Your task to perform on an android device: allow notifications from all sites in the chrome app Image 0: 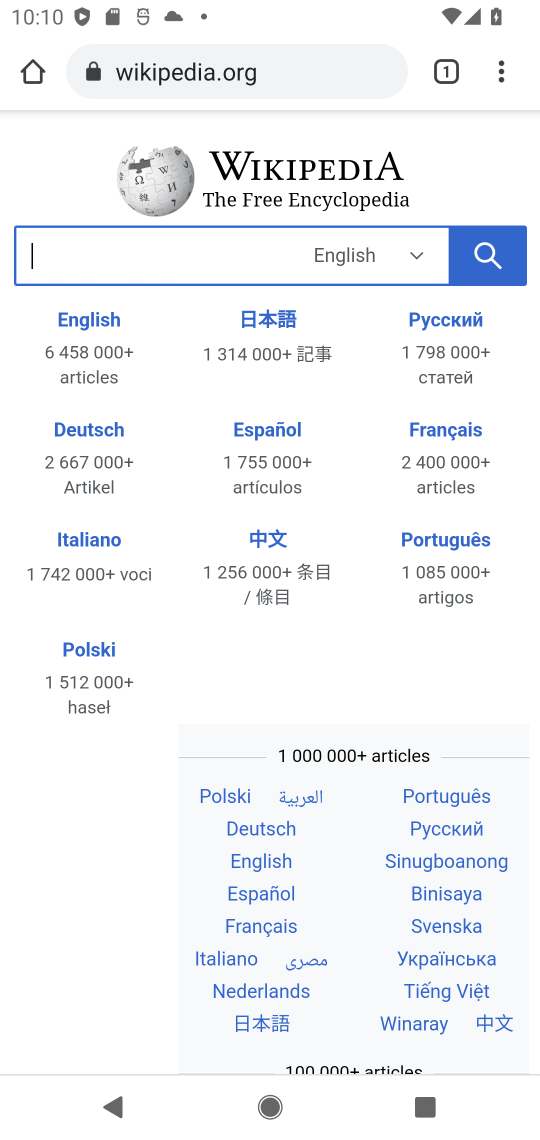
Step 0: click (489, 81)
Your task to perform on an android device: allow notifications from all sites in the chrome app Image 1: 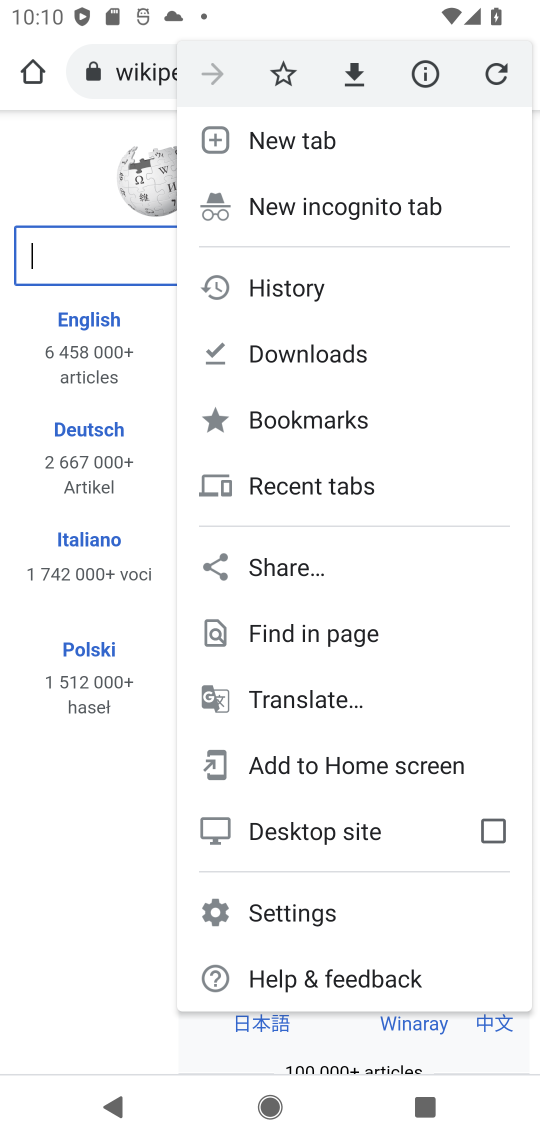
Step 1: click (287, 913)
Your task to perform on an android device: allow notifications from all sites in the chrome app Image 2: 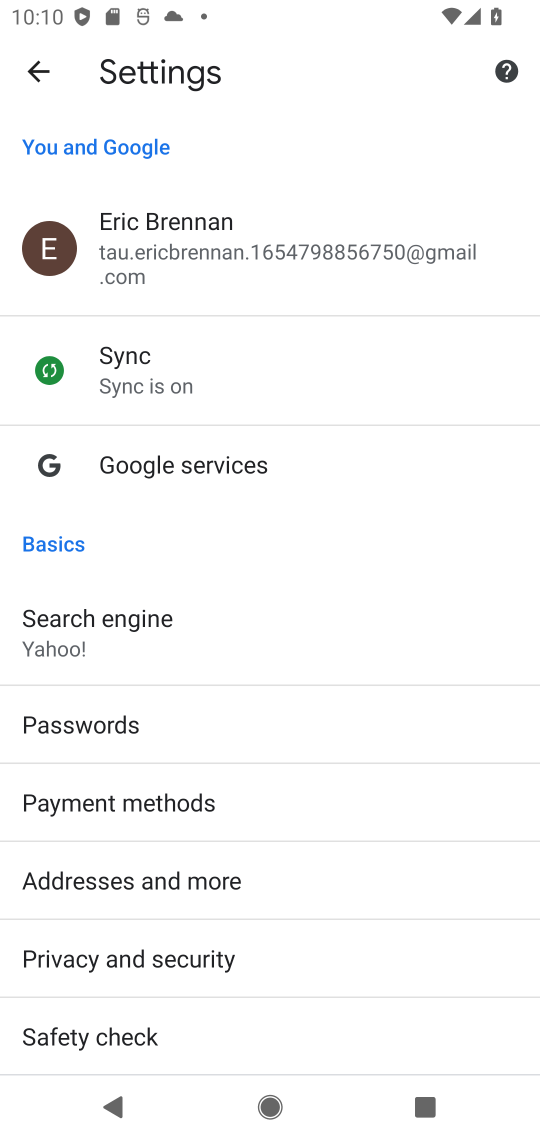
Step 2: drag from (287, 913) to (332, 293)
Your task to perform on an android device: allow notifications from all sites in the chrome app Image 3: 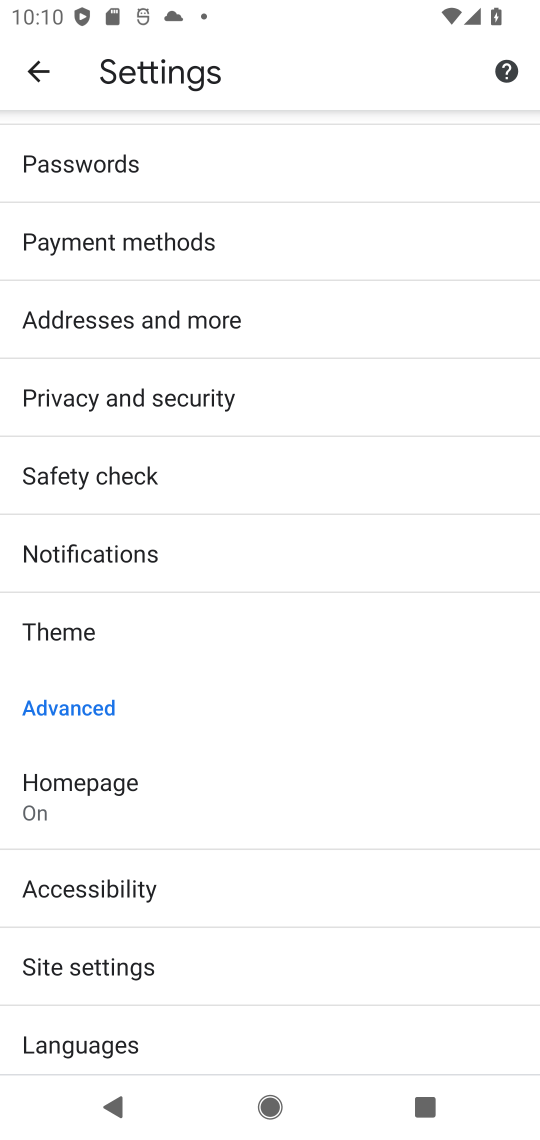
Step 3: drag from (272, 889) to (282, 409)
Your task to perform on an android device: allow notifications from all sites in the chrome app Image 4: 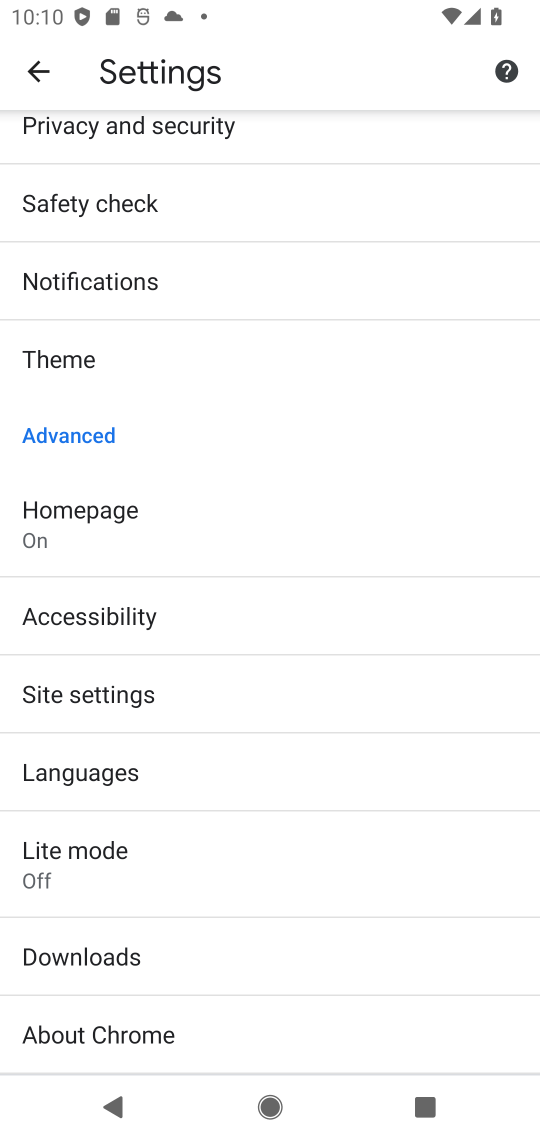
Step 4: click (88, 679)
Your task to perform on an android device: allow notifications from all sites in the chrome app Image 5: 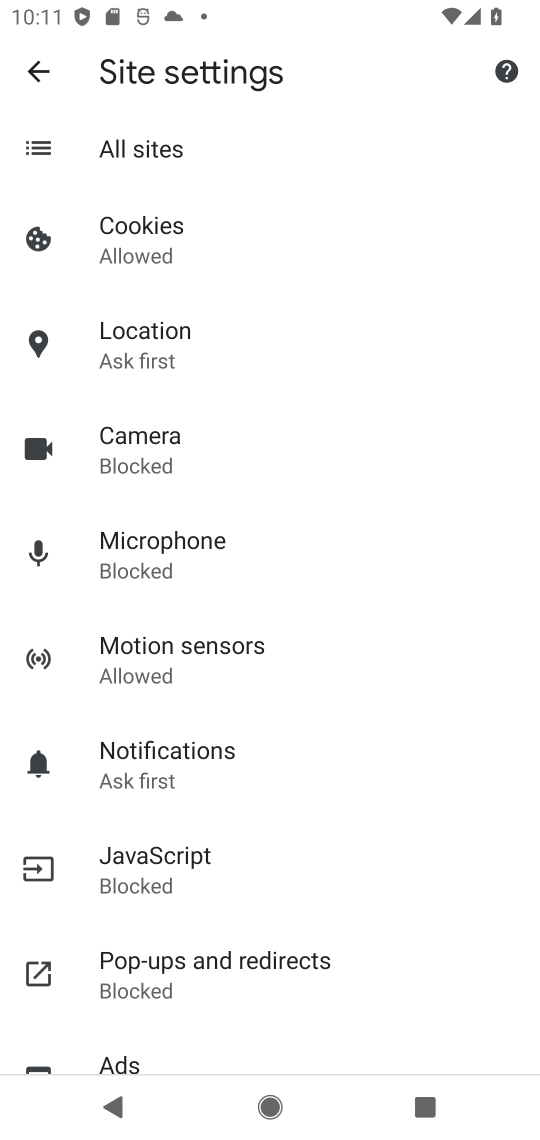
Step 5: click (153, 745)
Your task to perform on an android device: allow notifications from all sites in the chrome app Image 6: 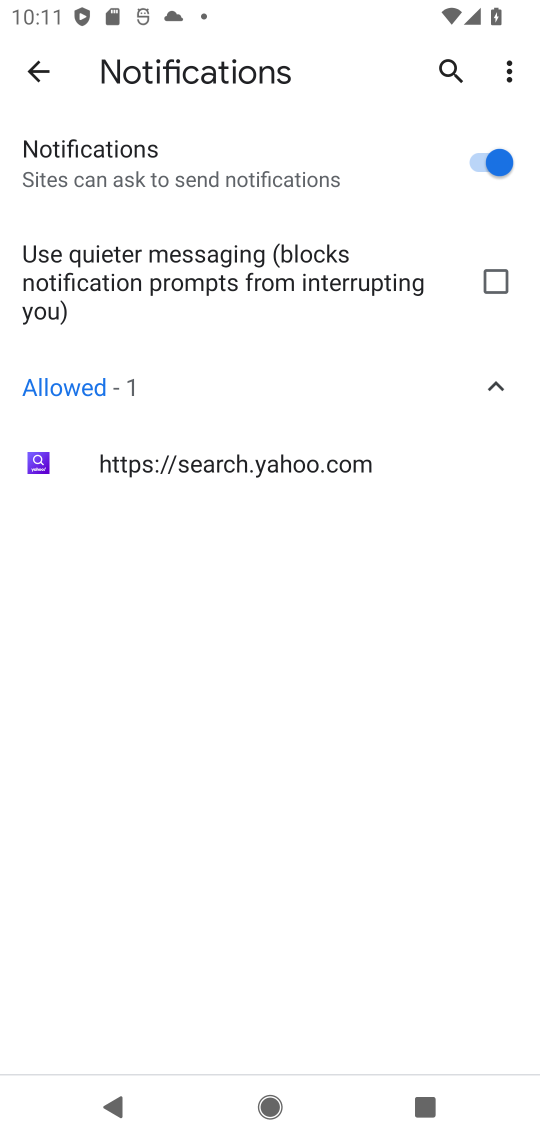
Step 6: task complete